Your task to perform on an android device: change text size in settings app Image 0: 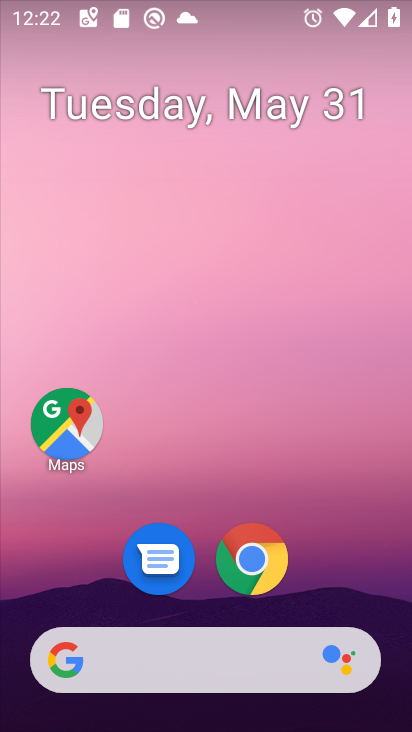
Step 0: drag from (382, 607) to (315, 298)
Your task to perform on an android device: change text size in settings app Image 1: 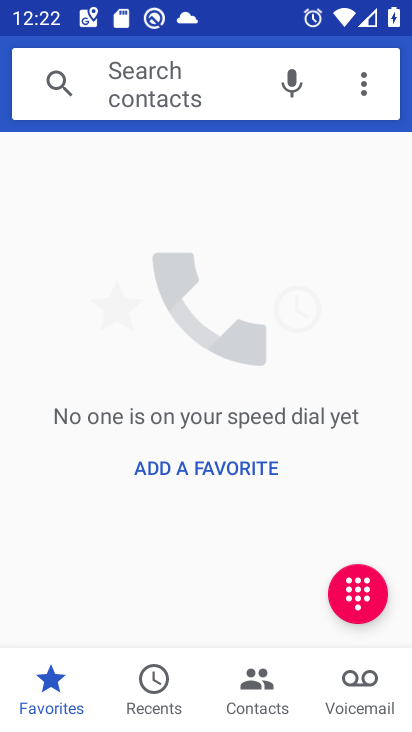
Step 1: press home button
Your task to perform on an android device: change text size in settings app Image 2: 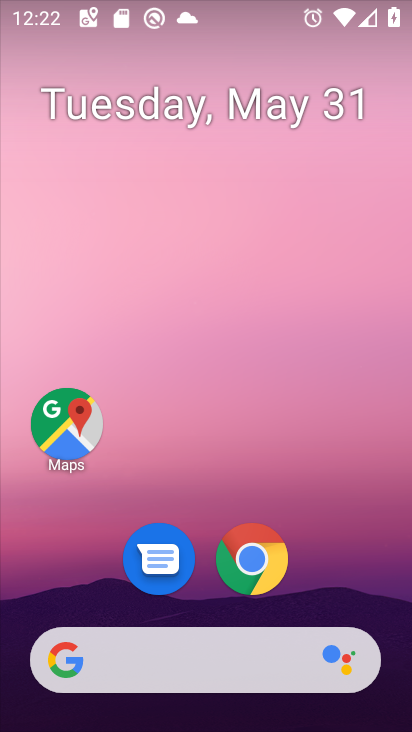
Step 2: drag from (347, 588) to (286, 149)
Your task to perform on an android device: change text size in settings app Image 3: 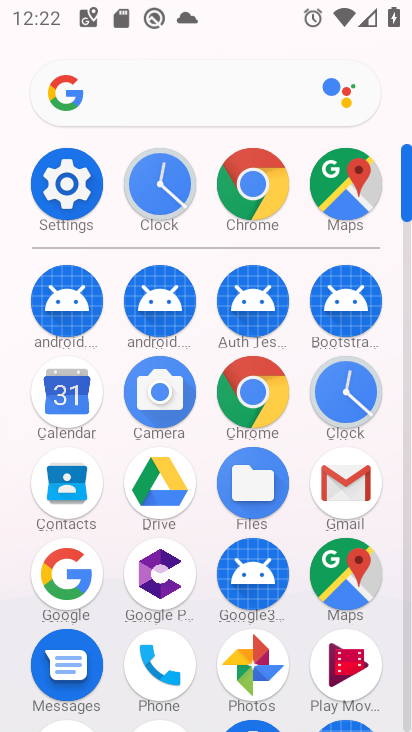
Step 3: click (72, 194)
Your task to perform on an android device: change text size in settings app Image 4: 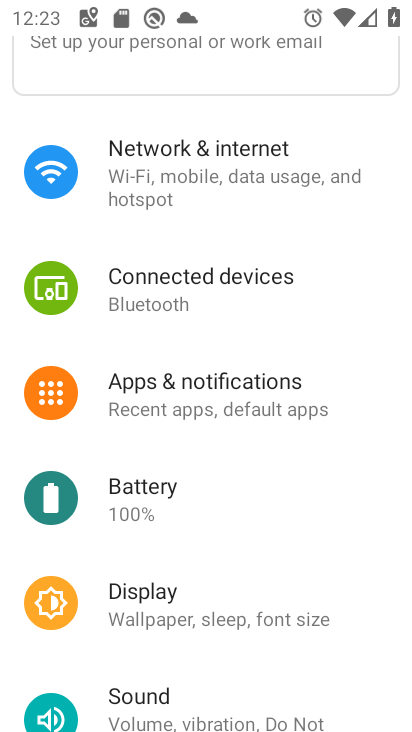
Step 4: click (205, 616)
Your task to perform on an android device: change text size in settings app Image 5: 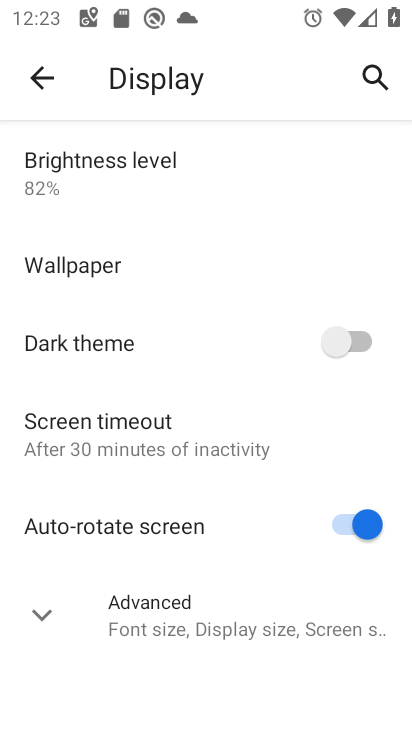
Step 5: click (205, 616)
Your task to perform on an android device: change text size in settings app Image 6: 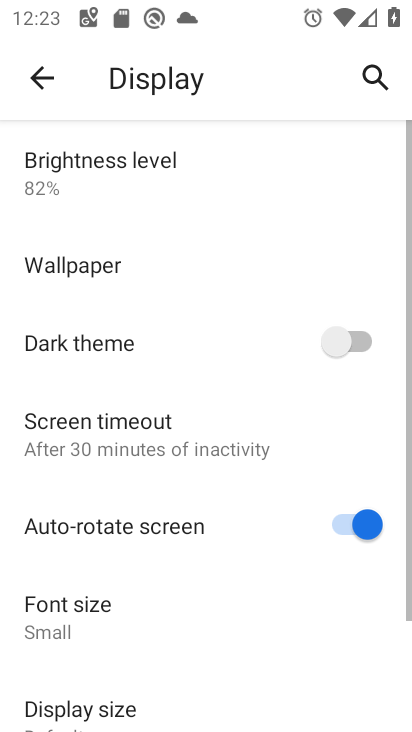
Step 6: drag from (205, 616) to (170, 351)
Your task to perform on an android device: change text size in settings app Image 7: 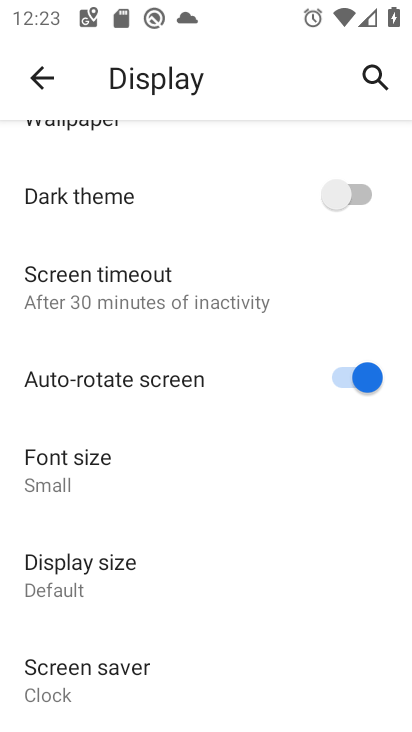
Step 7: click (187, 452)
Your task to perform on an android device: change text size in settings app Image 8: 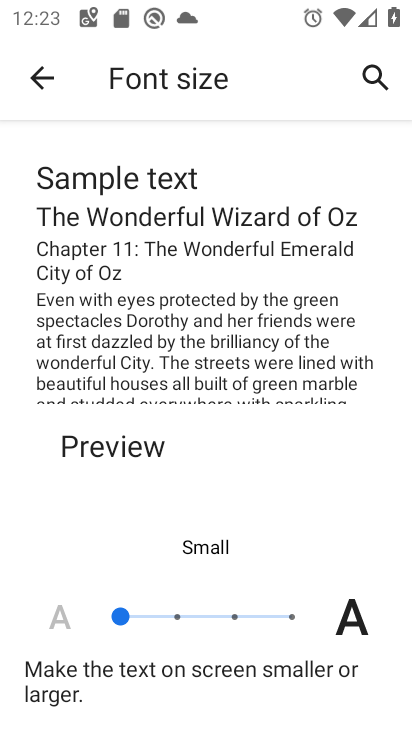
Step 8: click (183, 617)
Your task to perform on an android device: change text size in settings app Image 9: 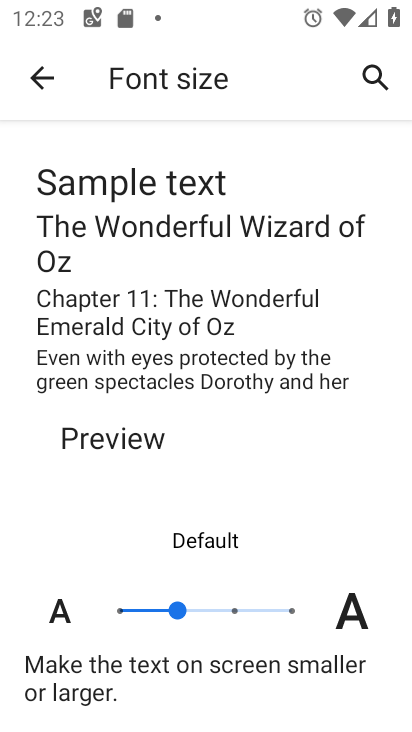
Step 9: task complete